Your task to perform on an android device: Open Google Chrome and click the shortcut for Amazon.com Image 0: 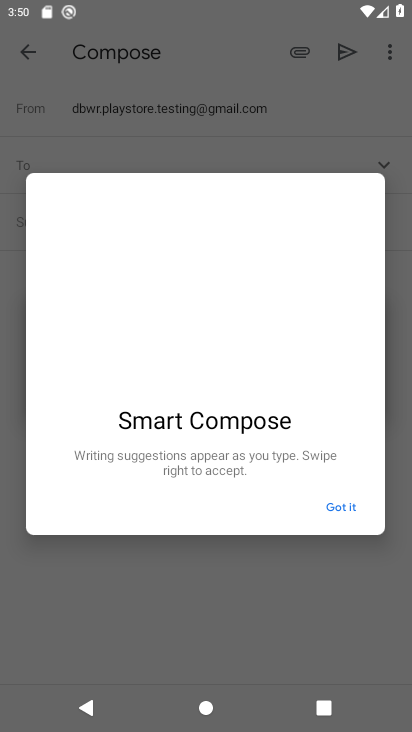
Step 0: press home button
Your task to perform on an android device: Open Google Chrome and click the shortcut for Amazon.com Image 1: 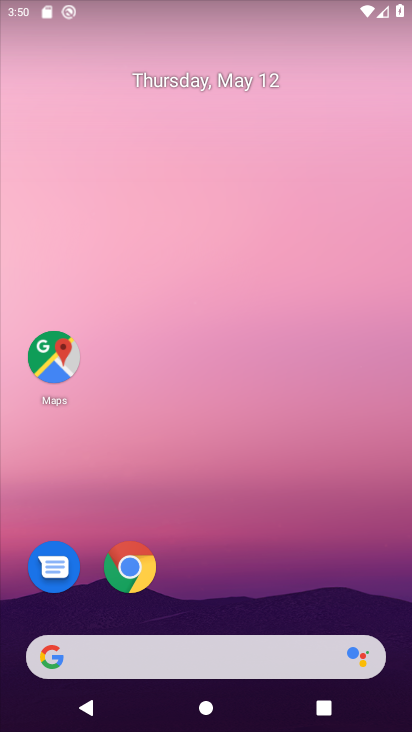
Step 1: click (138, 567)
Your task to perform on an android device: Open Google Chrome and click the shortcut for Amazon.com Image 2: 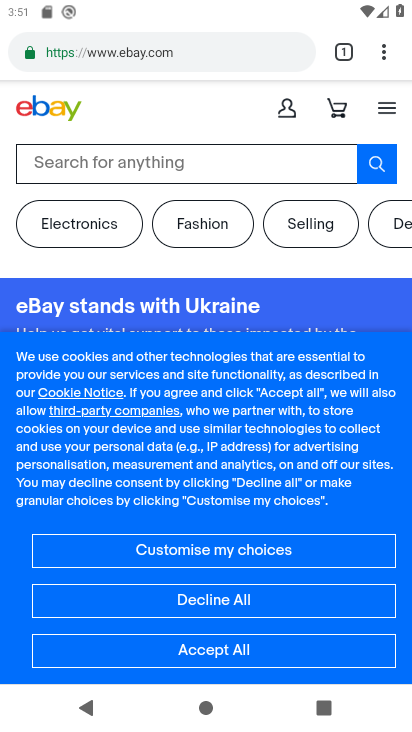
Step 2: click (339, 57)
Your task to perform on an android device: Open Google Chrome and click the shortcut for Amazon.com Image 3: 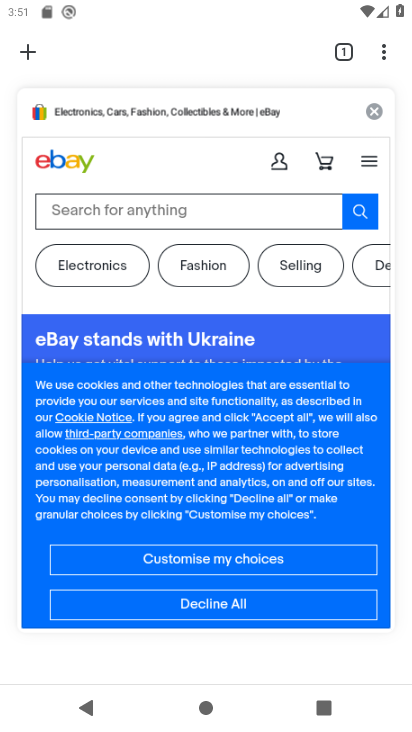
Step 3: click (34, 58)
Your task to perform on an android device: Open Google Chrome and click the shortcut for Amazon.com Image 4: 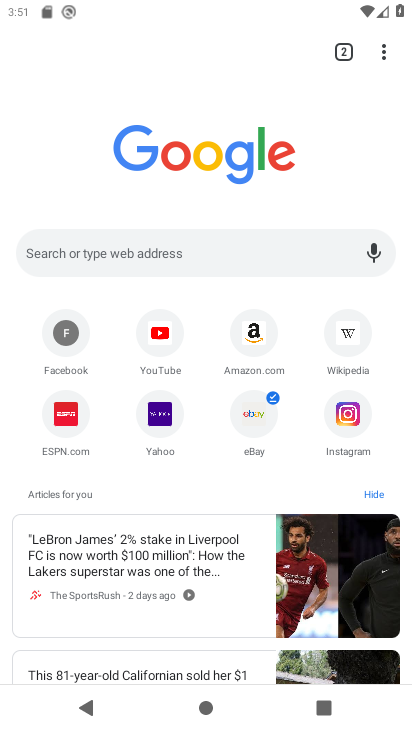
Step 4: click (259, 324)
Your task to perform on an android device: Open Google Chrome and click the shortcut for Amazon.com Image 5: 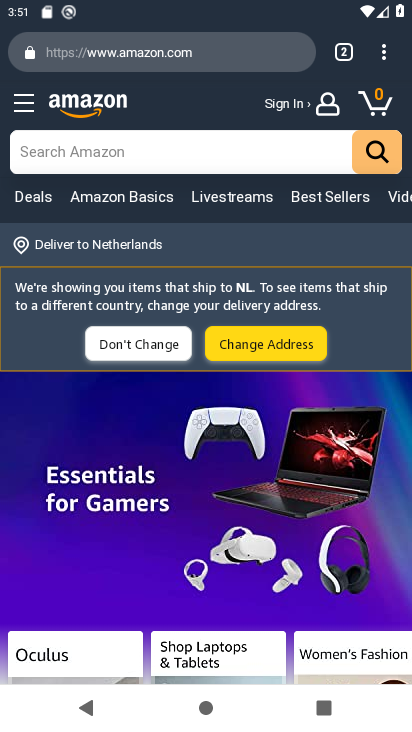
Step 5: click (380, 54)
Your task to perform on an android device: Open Google Chrome and click the shortcut for Amazon.com Image 6: 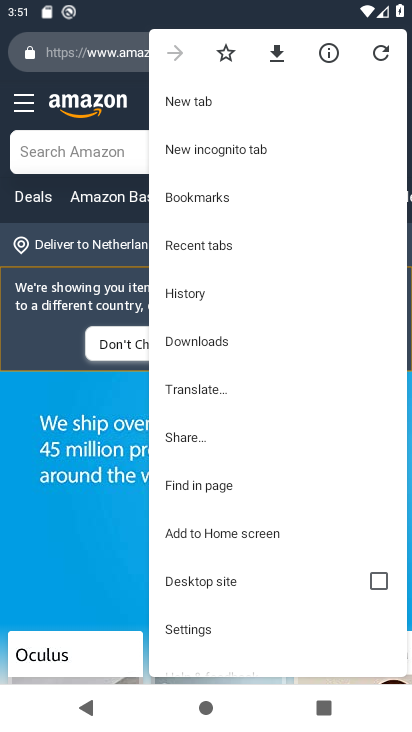
Step 6: click (236, 527)
Your task to perform on an android device: Open Google Chrome and click the shortcut for Amazon.com Image 7: 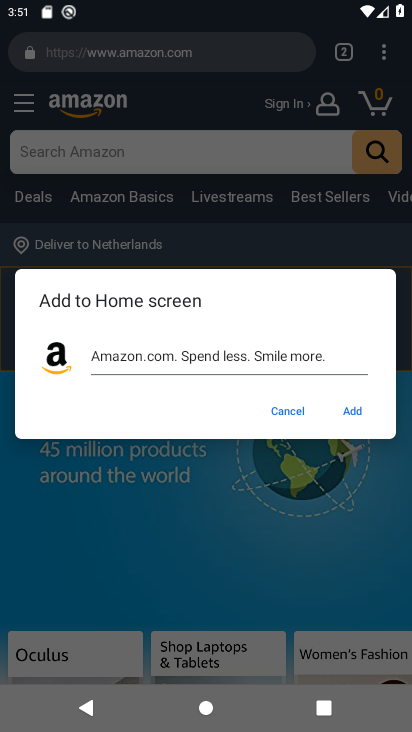
Step 7: click (352, 416)
Your task to perform on an android device: Open Google Chrome and click the shortcut for Amazon.com Image 8: 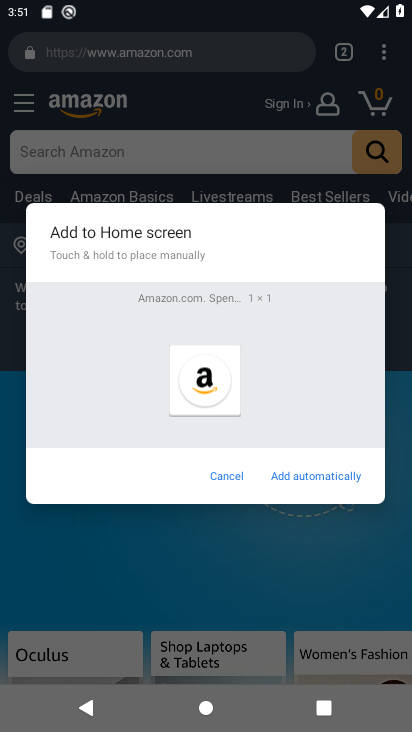
Step 8: click (321, 482)
Your task to perform on an android device: Open Google Chrome and click the shortcut for Amazon.com Image 9: 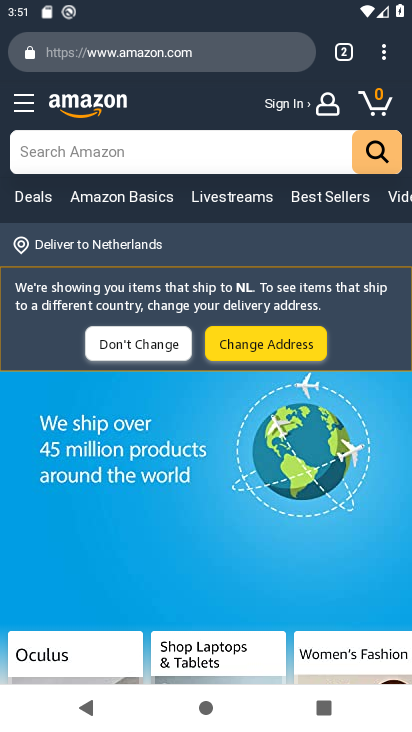
Step 9: task complete